Your task to perform on an android device: turn on improve location accuracy Image 0: 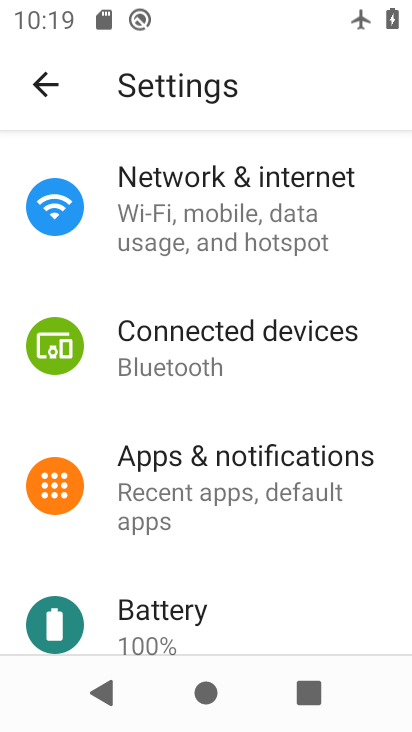
Step 0: press home button
Your task to perform on an android device: turn on improve location accuracy Image 1: 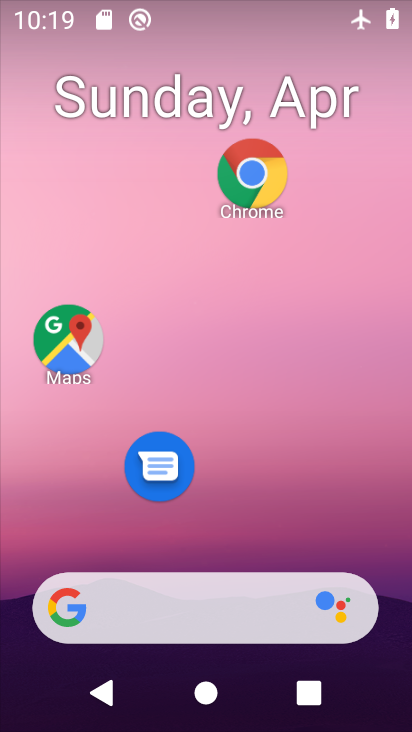
Step 1: drag from (319, 441) to (335, 29)
Your task to perform on an android device: turn on improve location accuracy Image 2: 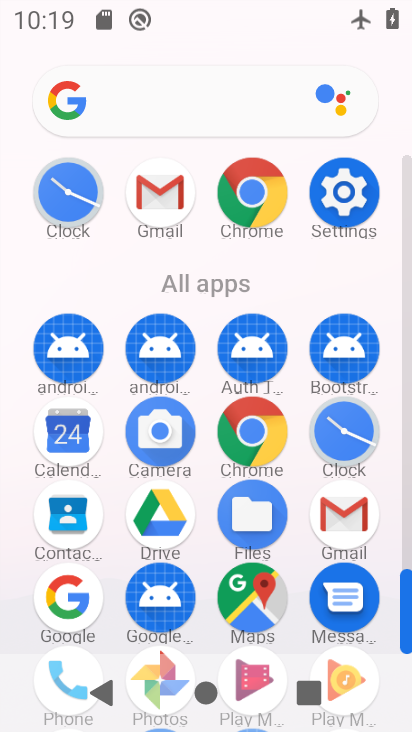
Step 2: click (368, 205)
Your task to perform on an android device: turn on improve location accuracy Image 3: 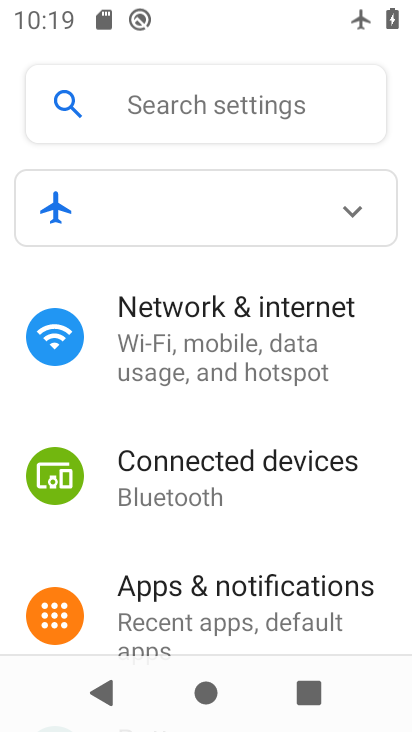
Step 3: click (368, 205)
Your task to perform on an android device: turn on improve location accuracy Image 4: 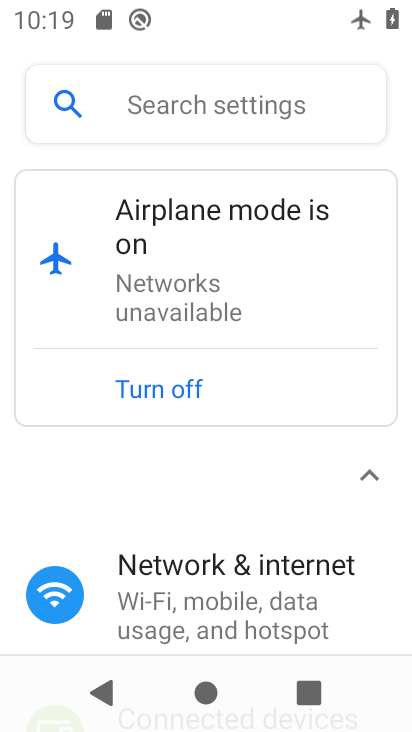
Step 4: click (364, 493)
Your task to perform on an android device: turn on improve location accuracy Image 5: 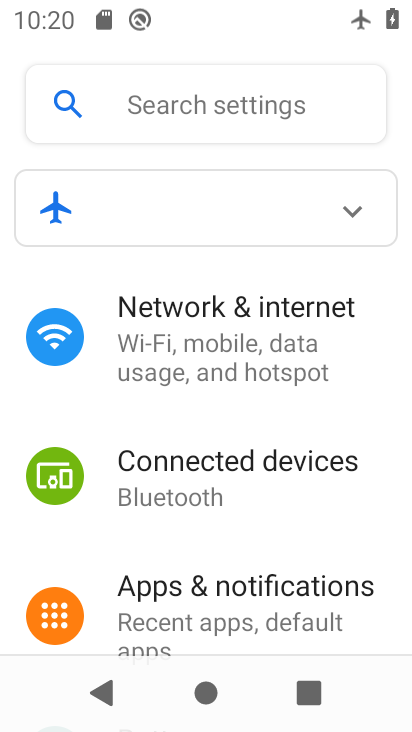
Step 5: drag from (227, 669) to (173, 272)
Your task to perform on an android device: turn on improve location accuracy Image 6: 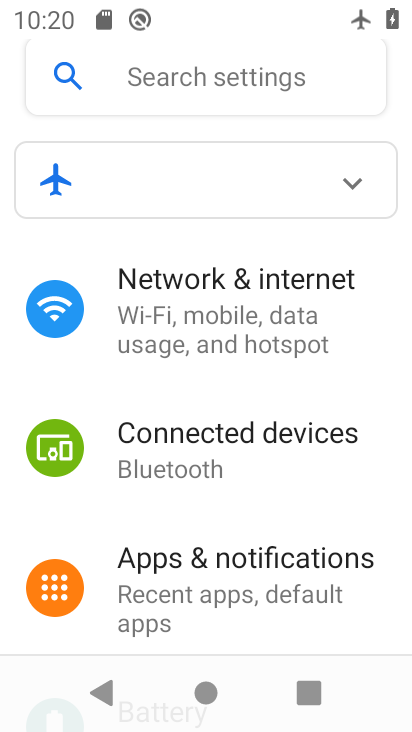
Step 6: drag from (188, 594) to (249, 247)
Your task to perform on an android device: turn on improve location accuracy Image 7: 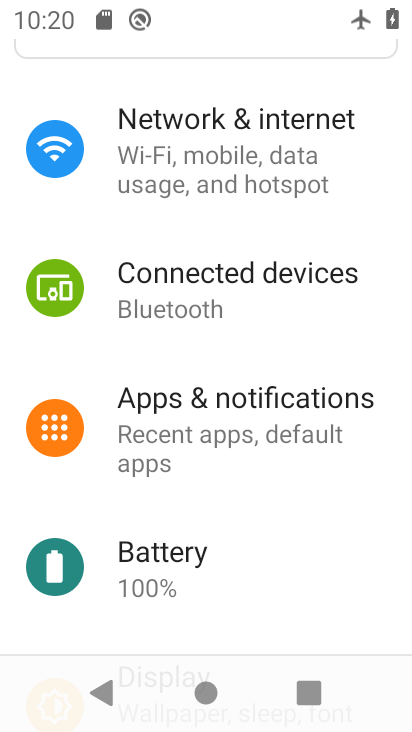
Step 7: drag from (263, 474) to (244, 222)
Your task to perform on an android device: turn on improve location accuracy Image 8: 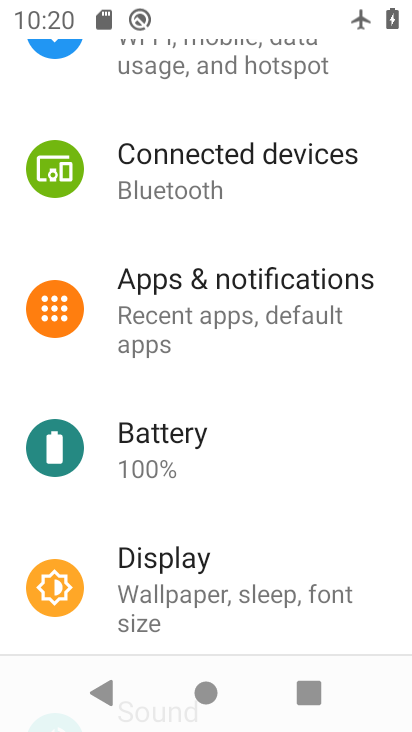
Step 8: drag from (327, 427) to (369, 151)
Your task to perform on an android device: turn on improve location accuracy Image 9: 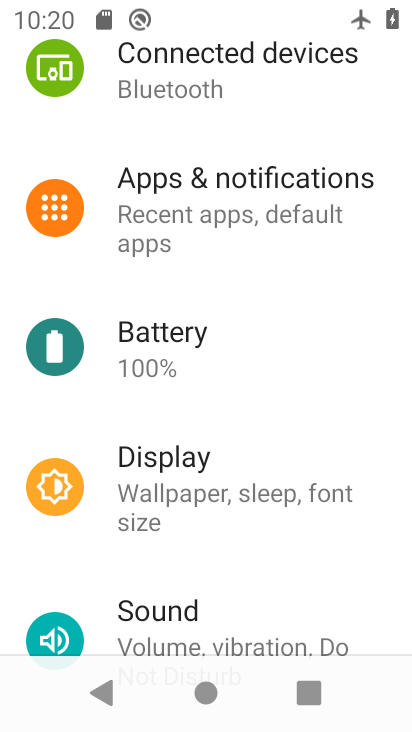
Step 9: drag from (227, 556) to (276, 224)
Your task to perform on an android device: turn on improve location accuracy Image 10: 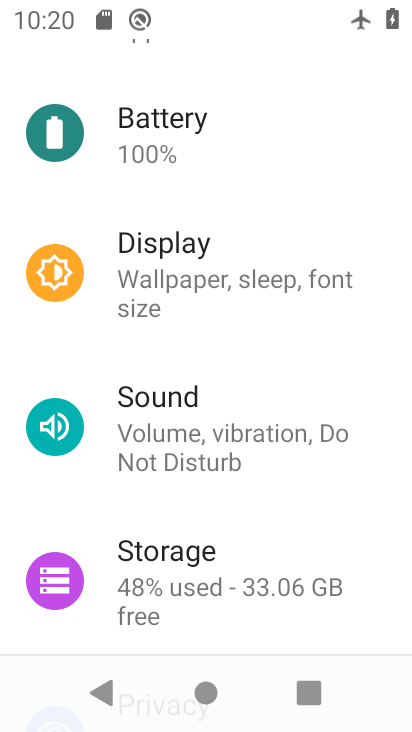
Step 10: drag from (282, 462) to (276, 148)
Your task to perform on an android device: turn on improve location accuracy Image 11: 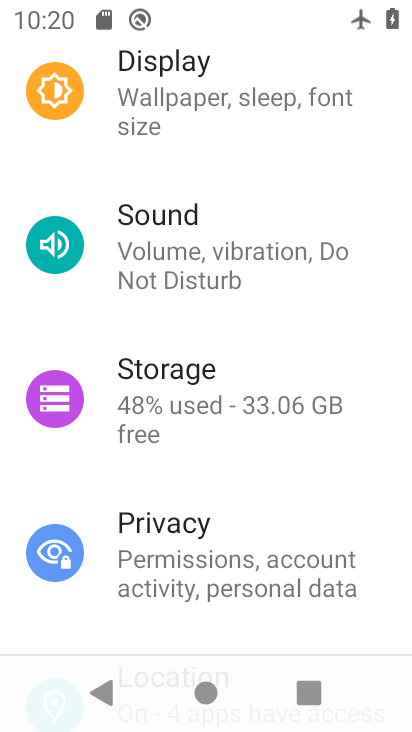
Step 11: drag from (276, 536) to (309, 108)
Your task to perform on an android device: turn on improve location accuracy Image 12: 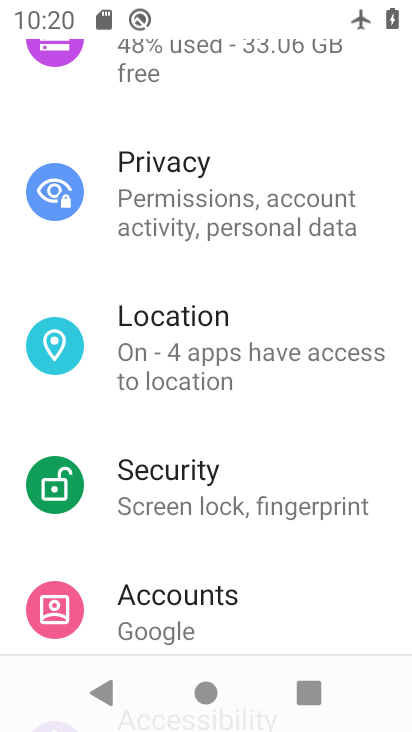
Step 12: click (285, 345)
Your task to perform on an android device: turn on improve location accuracy Image 13: 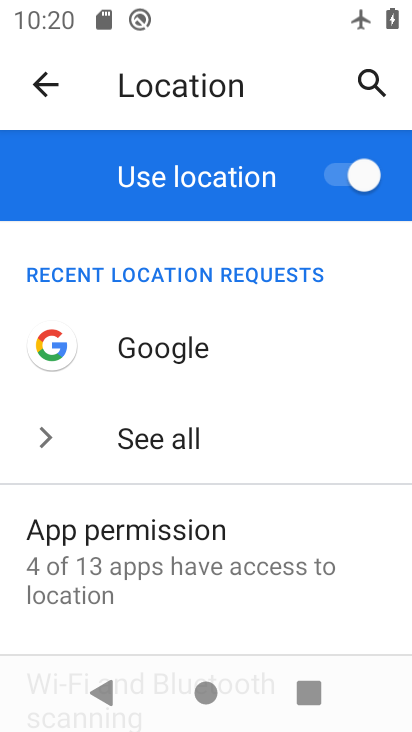
Step 13: drag from (270, 580) to (279, 255)
Your task to perform on an android device: turn on improve location accuracy Image 14: 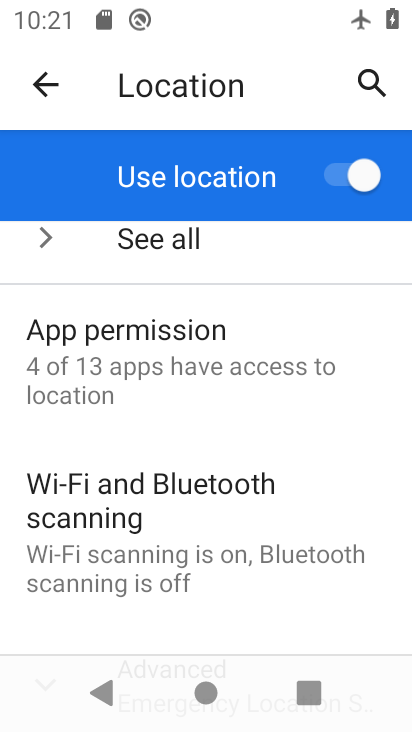
Step 14: drag from (253, 599) to (273, 245)
Your task to perform on an android device: turn on improve location accuracy Image 15: 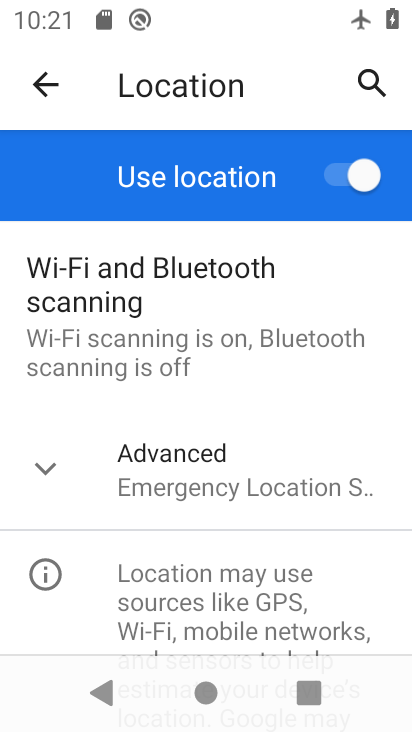
Step 15: drag from (277, 579) to (341, 244)
Your task to perform on an android device: turn on improve location accuracy Image 16: 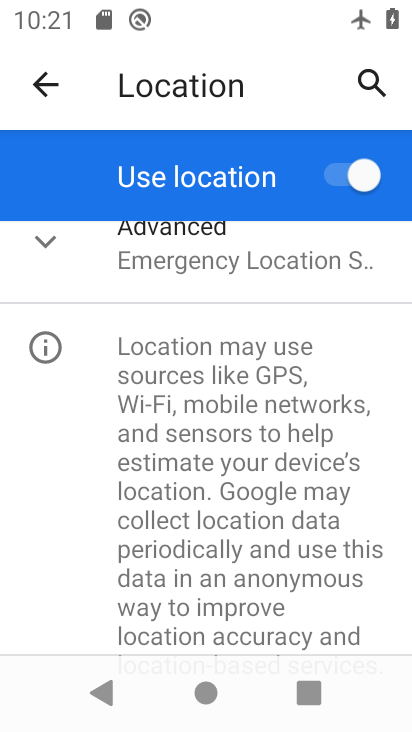
Step 16: click (208, 248)
Your task to perform on an android device: turn on improve location accuracy Image 17: 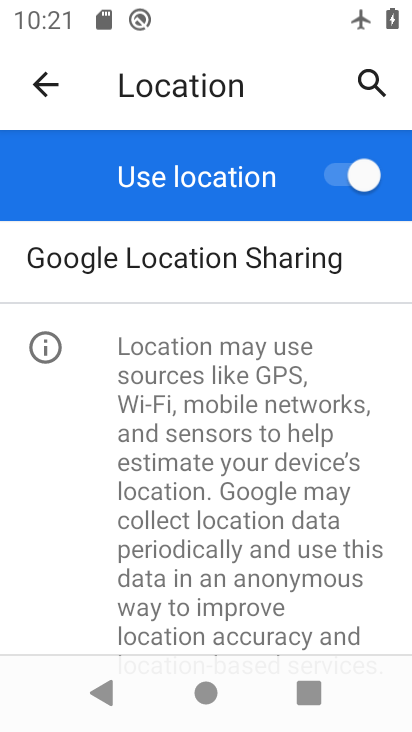
Step 17: drag from (368, 376) to (343, 611)
Your task to perform on an android device: turn on improve location accuracy Image 18: 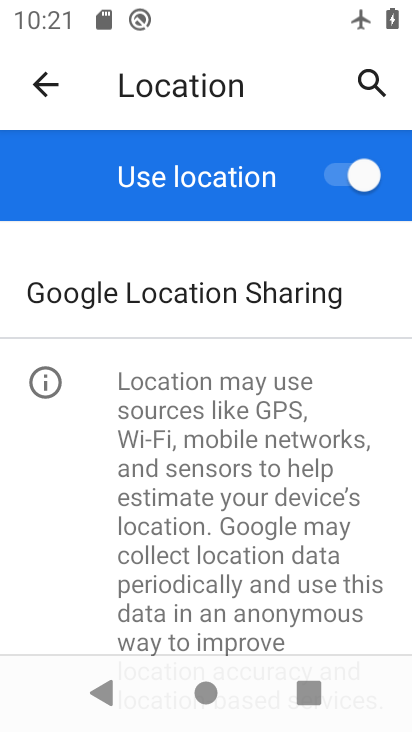
Step 18: drag from (322, 306) to (350, 606)
Your task to perform on an android device: turn on improve location accuracy Image 19: 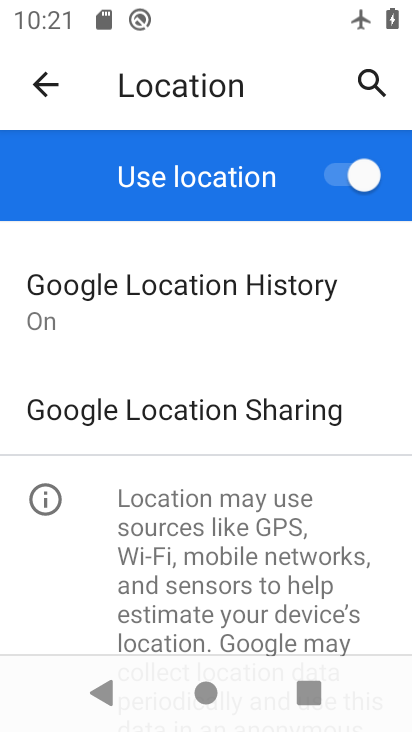
Step 19: drag from (263, 385) to (312, 600)
Your task to perform on an android device: turn on improve location accuracy Image 20: 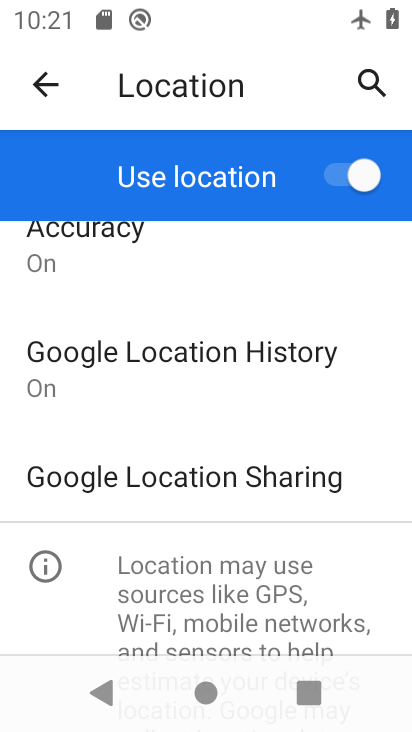
Step 20: drag from (285, 335) to (304, 618)
Your task to perform on an android device: turn on improve location accuracy Image 21: 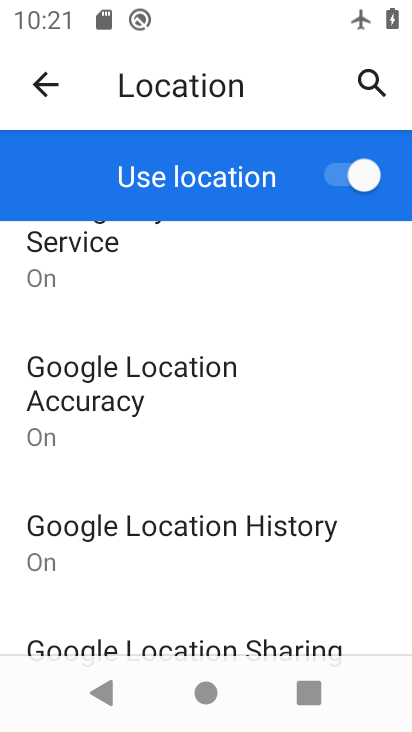
Step 21: click (70, 377)
Your task to perform on an android device: turn on improve location accuracy Image 22: 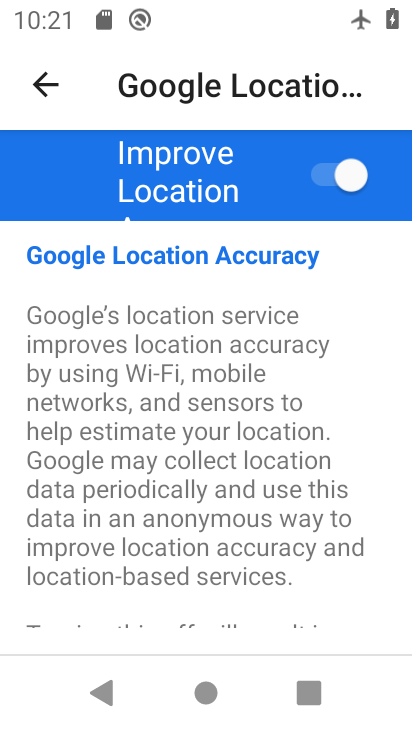
Step 22: task complete